Your task to perform on an android device: What's the weather? Image 0: 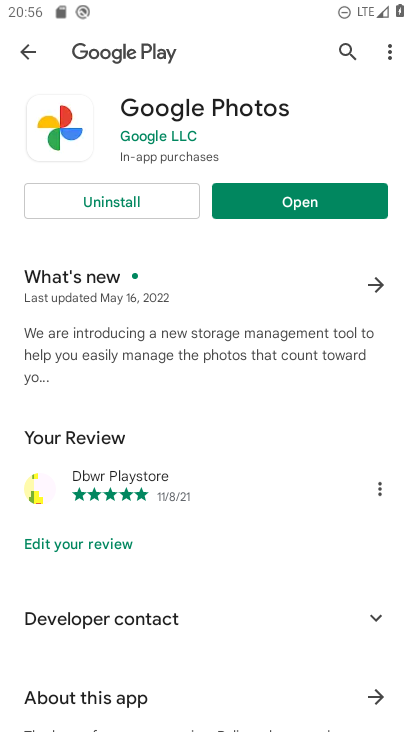
Step 0: press home button
Your task to perform on an android device: What's the weather? Image 1: 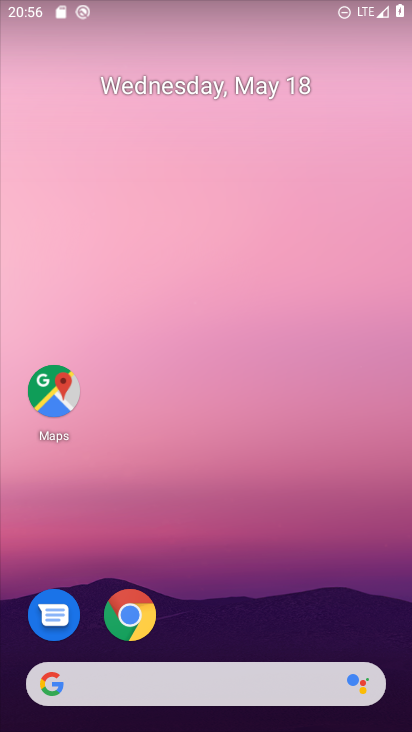
Step 1: press home button
Your task to perform on an android device: What's the weather? Image 2: 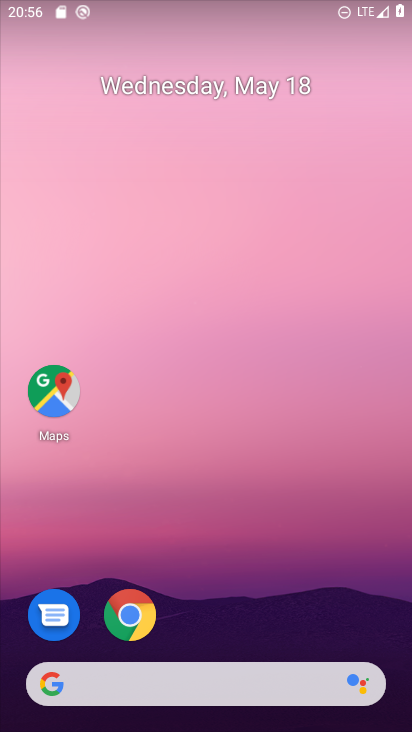
Step 2: drag from (55, 238) to (341, 306)
Your task to perform on an android device: What's the weather? Image 3: 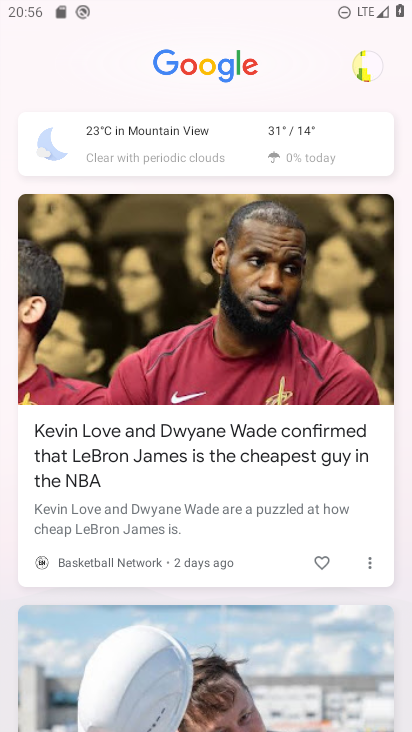
Step 3: click (129, 153)
Your task to perform on an android device: What's the weather? Image 4: 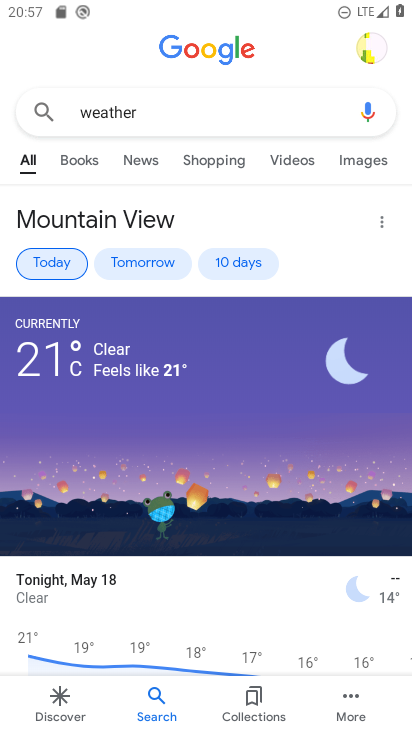
Step 4: task complete